Your task to perform on an android device: open app "VLC for Android" (install if not already installed), go to login, and select forgot password Image 0: 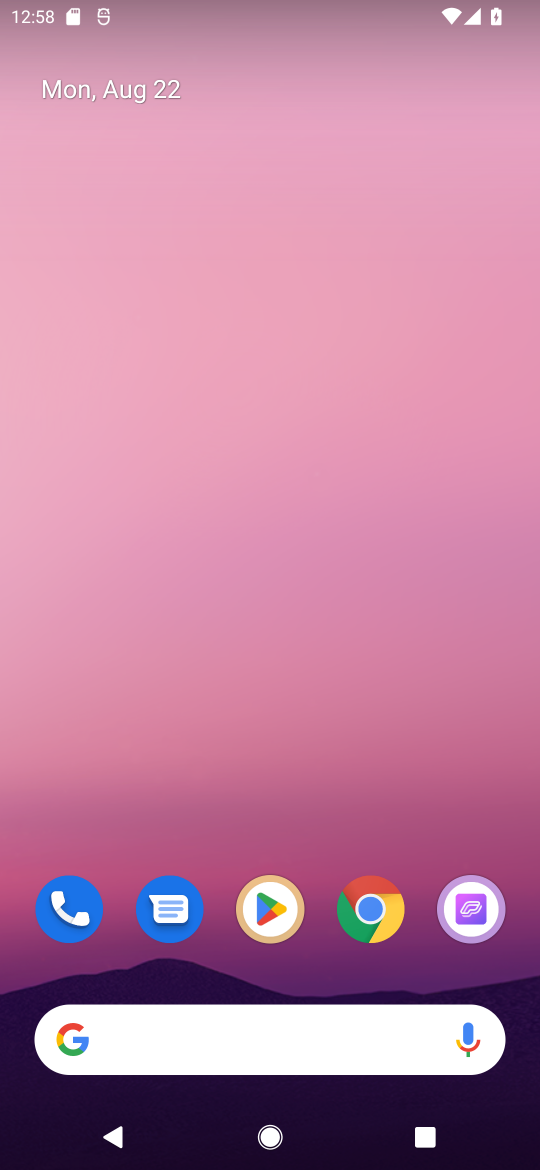
Step 0: click (256, 928)
Your task to perform on an android device: open app "VLC for Android" (install if not already installed), go to login, and select forgot password Image 1: 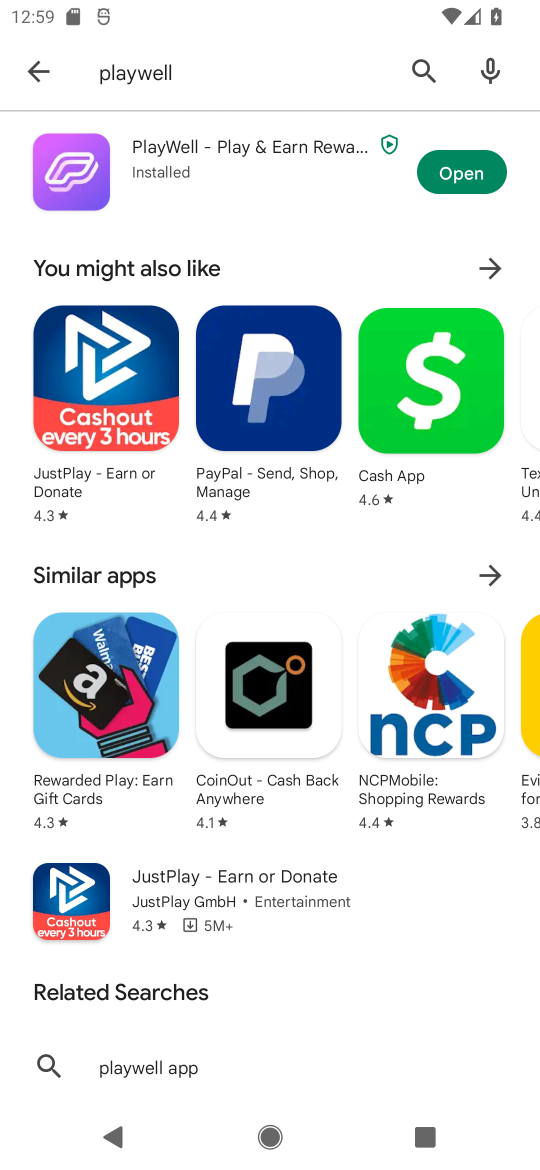
Step 1: click (418, 39)
Your task to perform on an android device: open app "VLC for Android" (install if not already installed), go to login, and select forgot password Image 2: 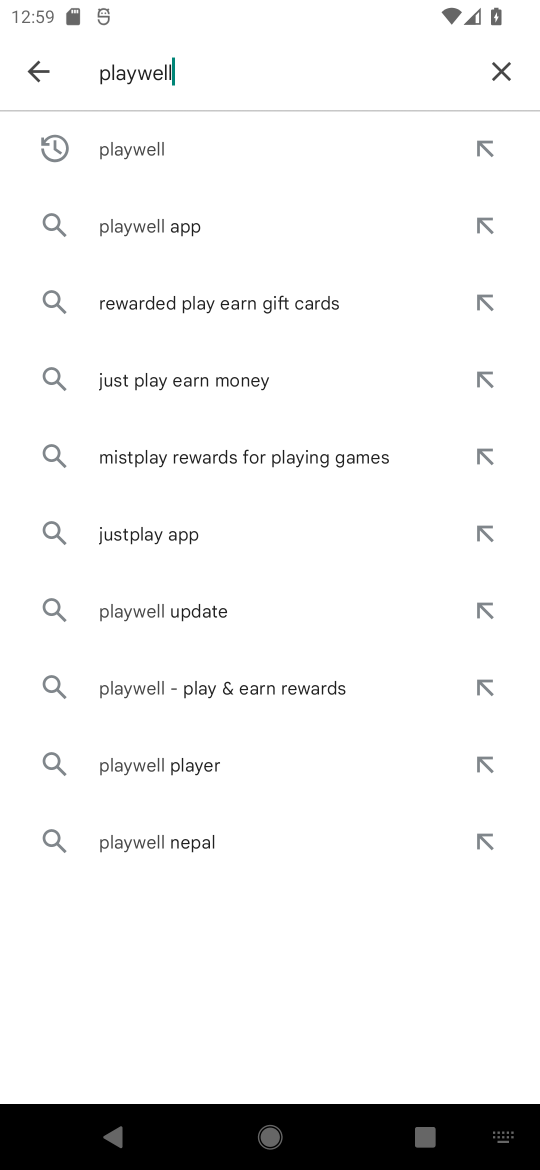
Step 2: click (509, 74)
Your task to perform on an android device: open app "VLC for Android" (install if not already installed), go to login, and select forgot password Image 3: 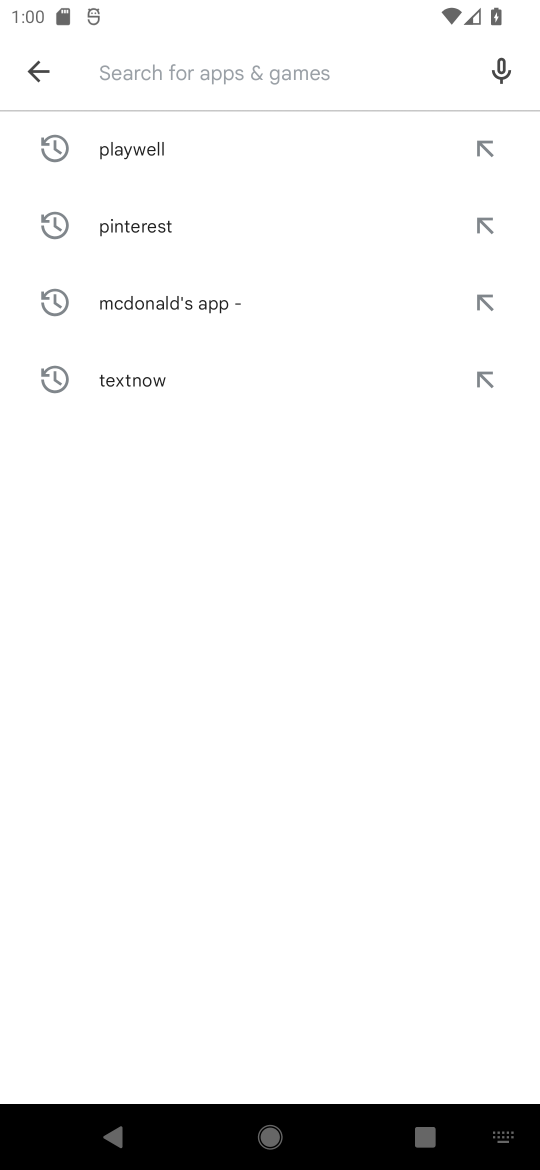
Step 3: type "VLC for Android"
Your task to perform on an android device: open app "VLC for Android" (install if not already installed), go to login, and select forgot password Image 4: 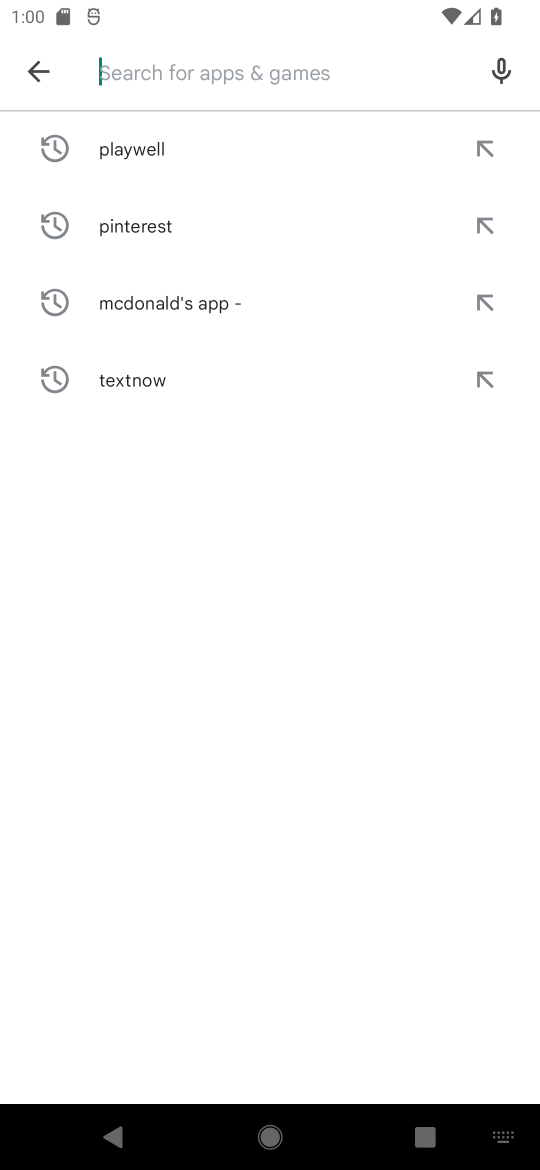
Step 4: click (413, 752)
Your task to perform on an android device: open app "VLC for Android" (install if not already installed), go to login, and select forgot password Image 5: 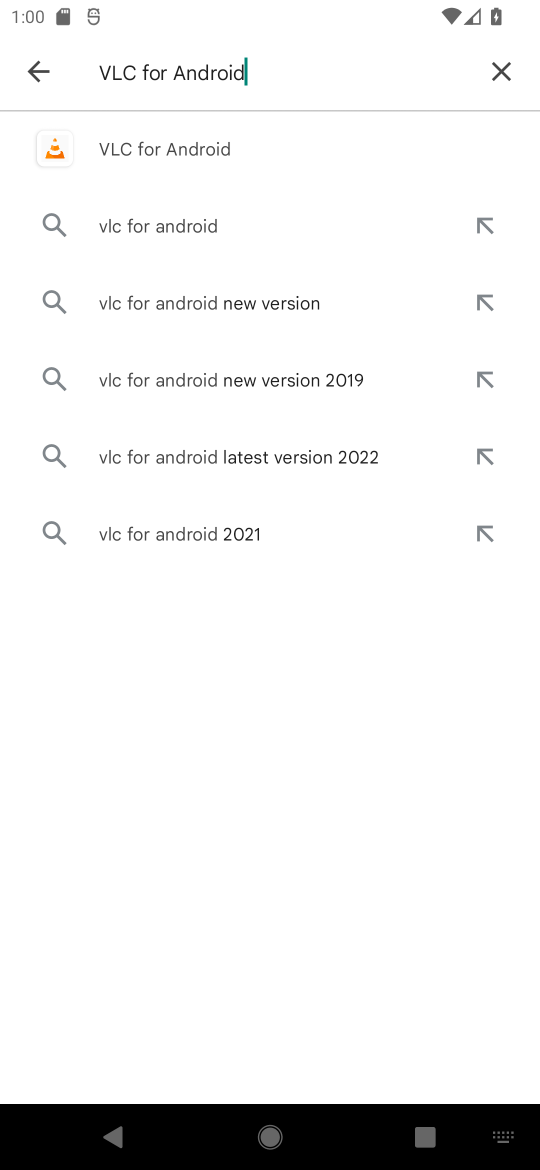
Step 5: click (149, 140)
Your task to perform on an android device: open app "VLC for Android" (install if not already installed), go to login, and select forgot password Image 6: 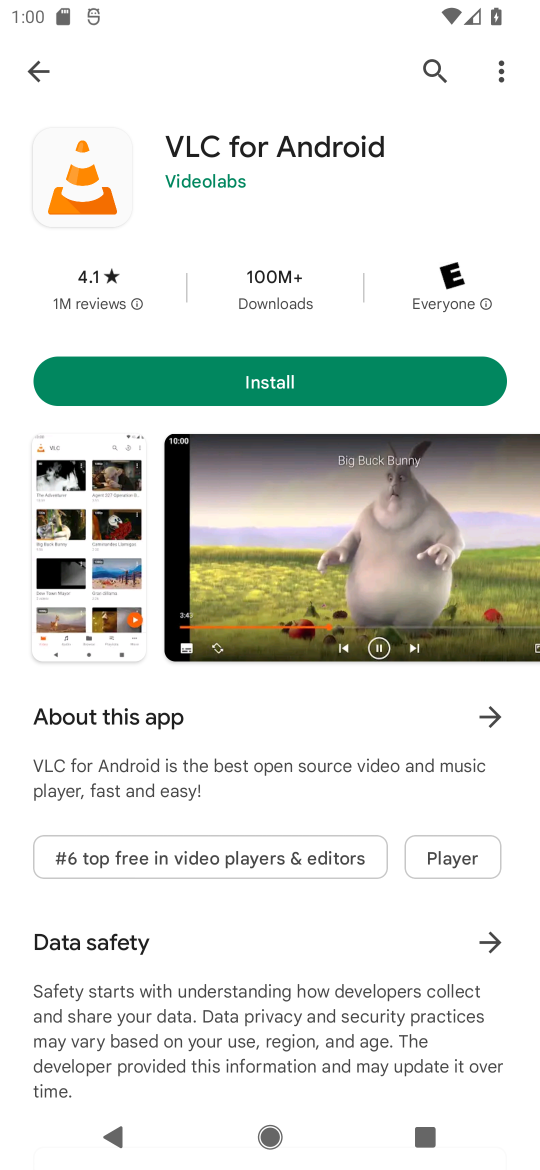
Step 6: click (237, 390)
Your task to perform on an android device: open app "VLC for Android" (install if not already installed), go to login, and select forgot password Image 7: 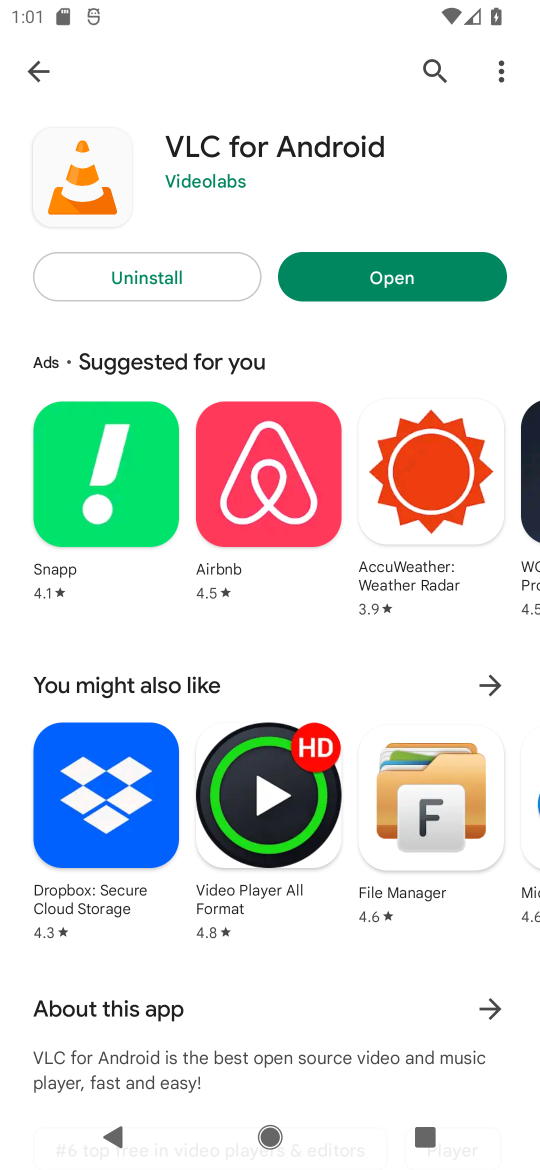
Step 7: click (372, 267)
Your task to perform on an android device: open app "VLC for Android" (install if not already installed), go to login, and select forgot password Image 8: 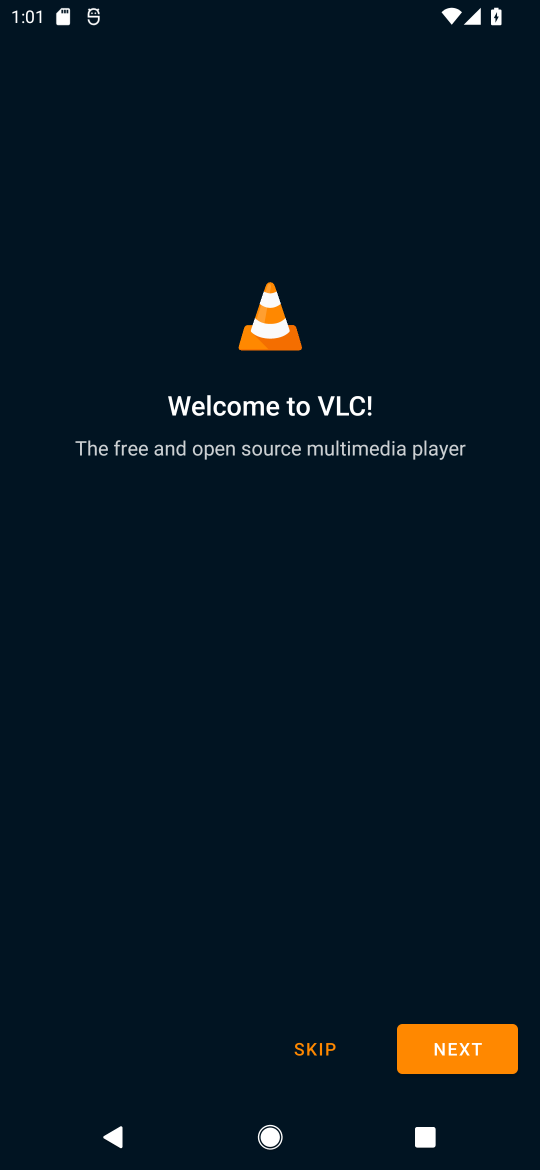
Step 8: task complete